Your task to perform on an android device: Open the calendar and show me this week's events? Image 0: 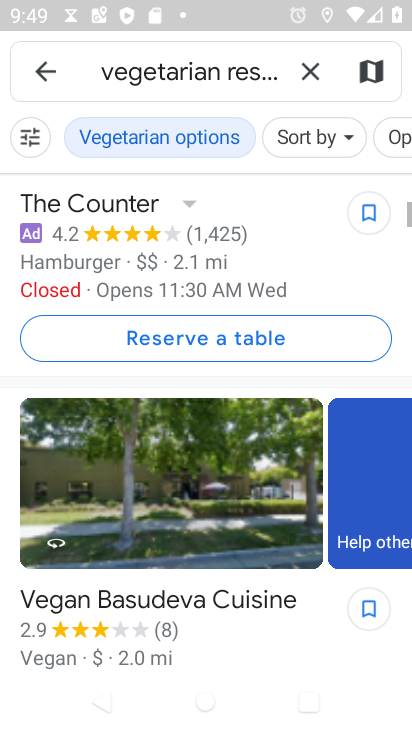
Step 0: press home button
Your task to perform on an android device: Open the calendar and show me this week's events? Image 1: 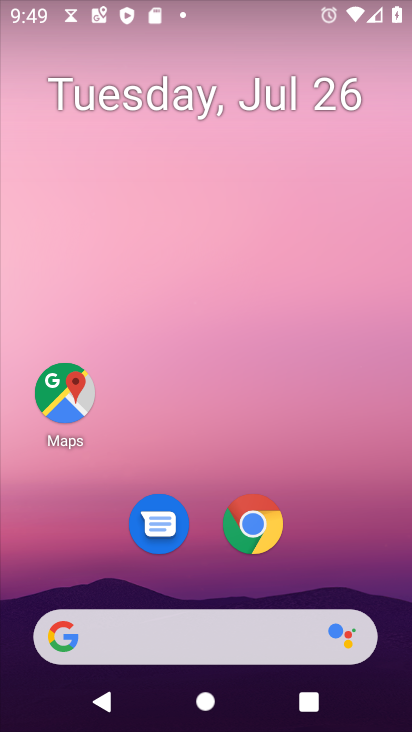
Step 1: drag from (231, 3) to (233, 481)
Your task to perform on an android device: Open the calendar and show me this week's events? Image 2: 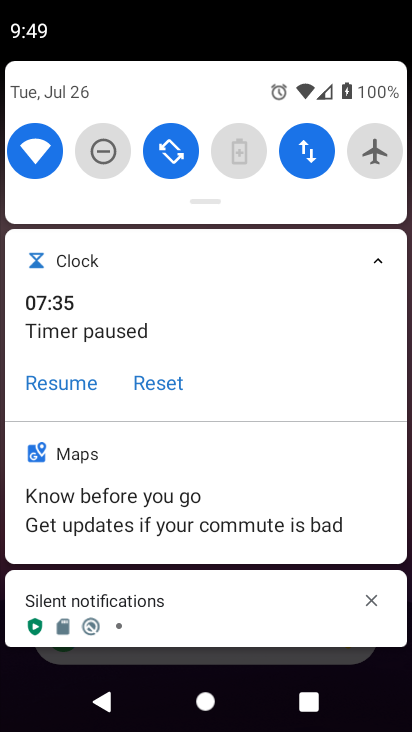
Step 2: drag from (204, 179) to (226, 573)
Your task to perform on an android device: Open the calendar and show me this week's events? Image 3: 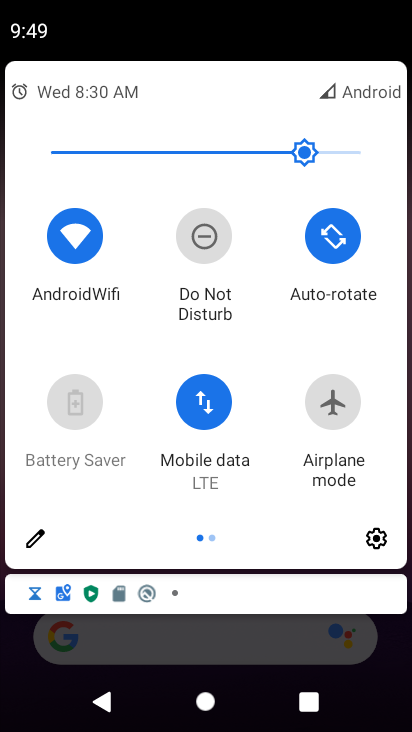
Step 3: press home button
Your task to perform on an android device: Open the calendar and show me this week's events? Image 4: 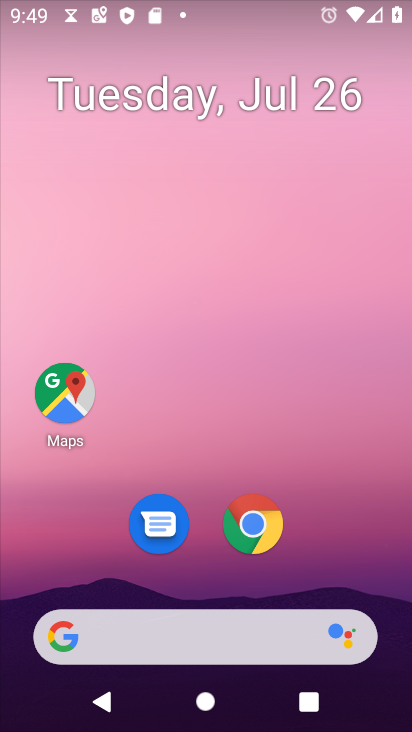
Step 4: drag from (163, 640) to (290, 65)
Your task to perform on an android device: Open the calendar and show me this week's events? Image 5: 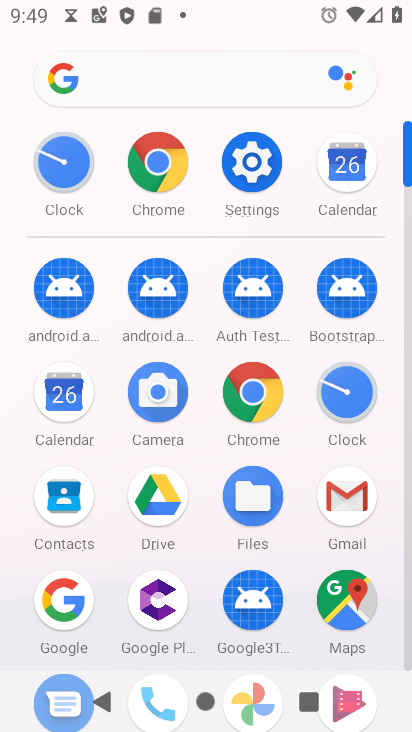
Step 5: click (60, 402)
Your task to perform on an android device: Open the calendar and show me this week's events? Image 6: 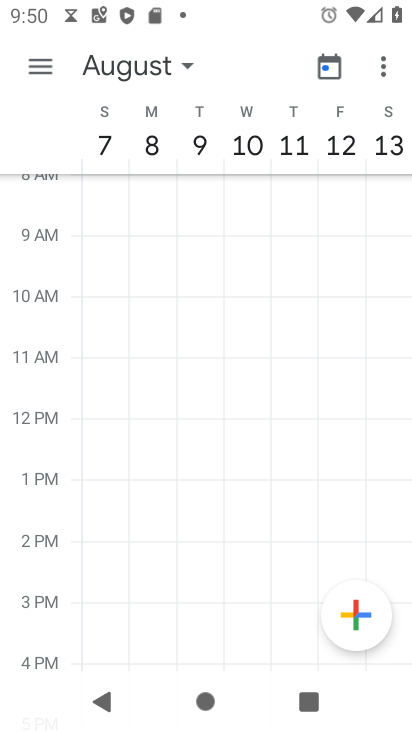
Step 6: click (135, 74)
Your task to perform on an android device: Open the calendar and show me this week's events? Image 7: 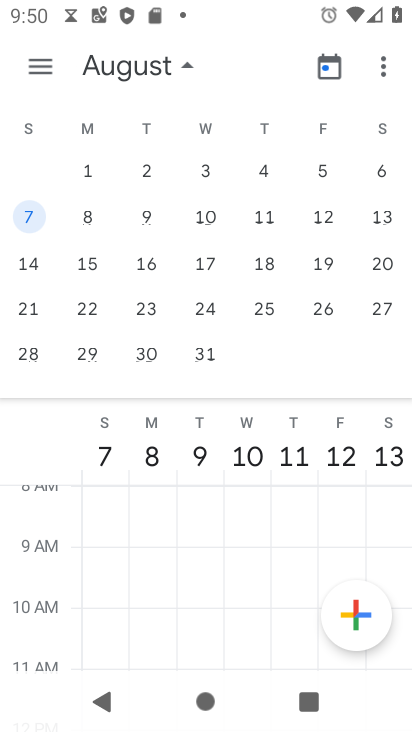
Step 7: drag from (164, 267) to (410, 269)
Your task to perform on an android device: Open the calendar and show me this week's events? Image 8: 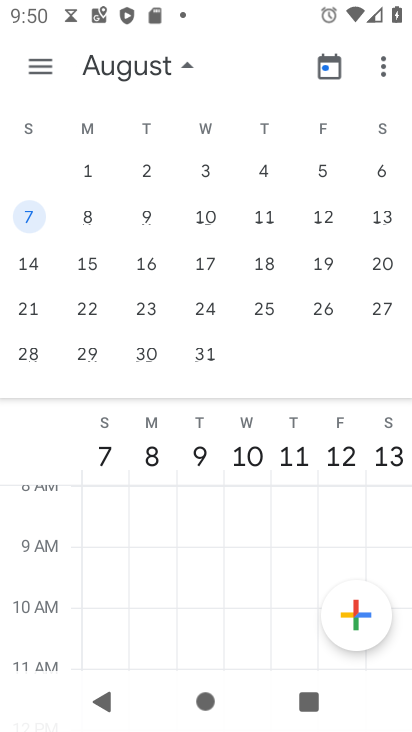
Step 8: drag from (61, 217) to (395, 260)
Your task to perform on an android device: Open the calendar and show me this week's events? Image 9: 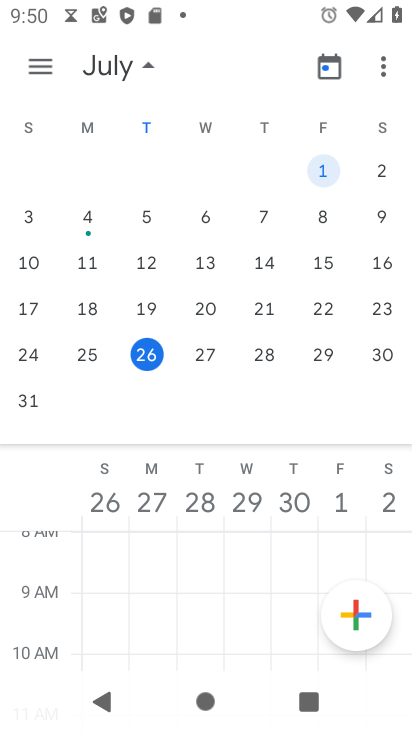
Step 9: click (145, 356)
Your task to perform on an android device: Open the calendar and show me this week's events? Image 10: 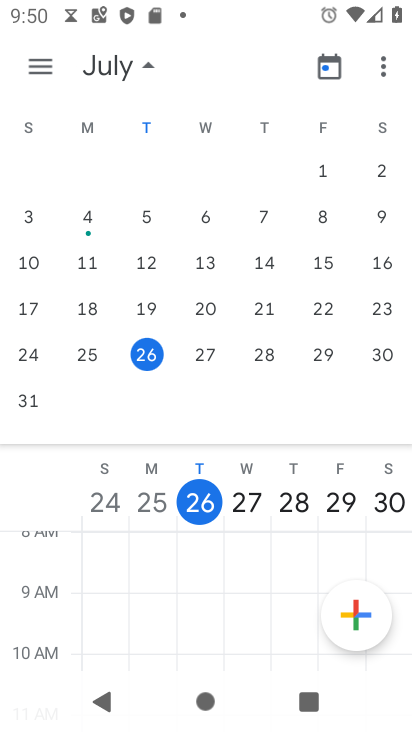
Step 10: click (38, 64)
Your task to perform on an android device: Open the calendar and show me this week's events? Image 11: 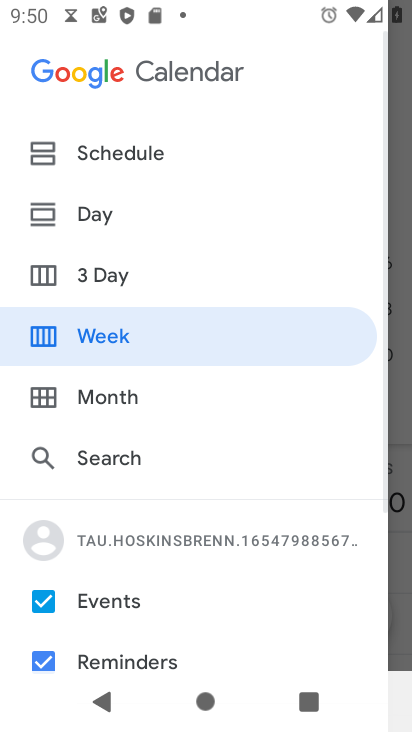
Step 11: click (122, 339)
Your task to perform on an android device: Open the calendar and show me this week's events? Image 12: 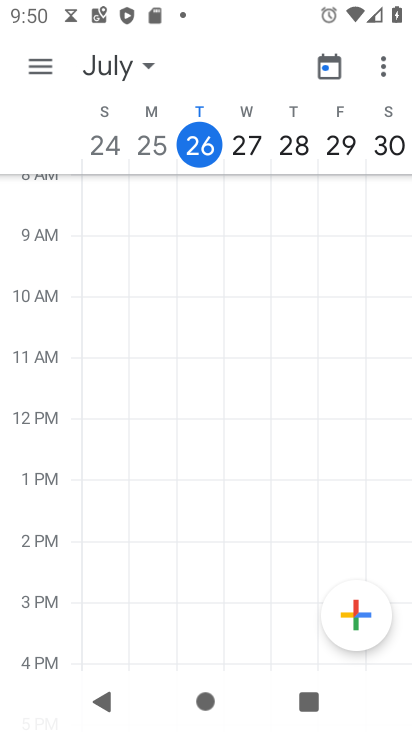
Step 12: click (44, 65)
Your task to perform on an android device: Open the calendar and show me this week's events? Image 13: 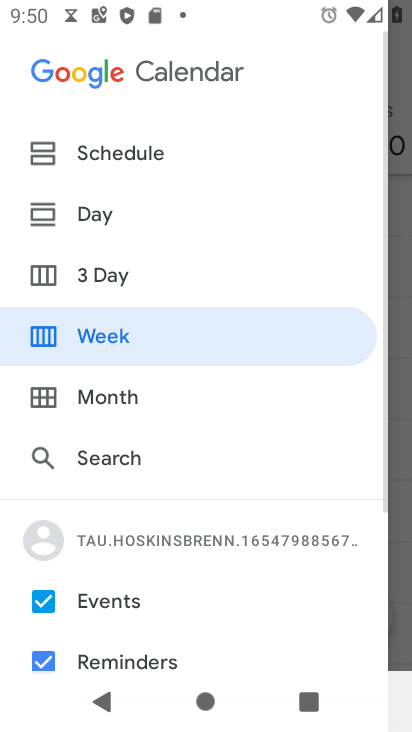
Step 13: click (116, 342)
Your task to perform on an android device: Open the calendar and show me this week's events? Image 14: 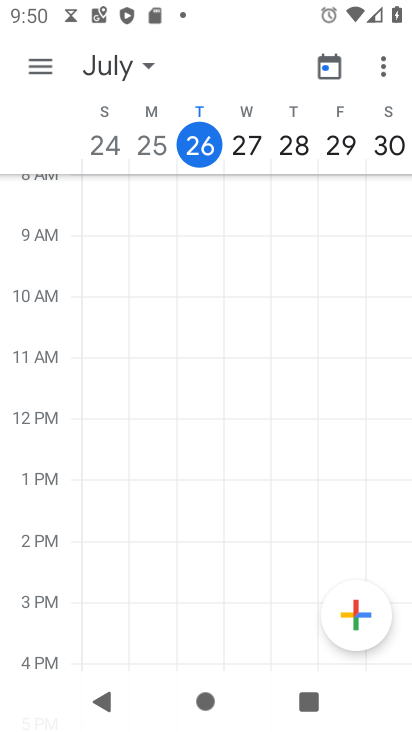
Step 14: click (46, 68)
Your task to perform on an android device: Open the calendar and show me this week's events? Image 15: 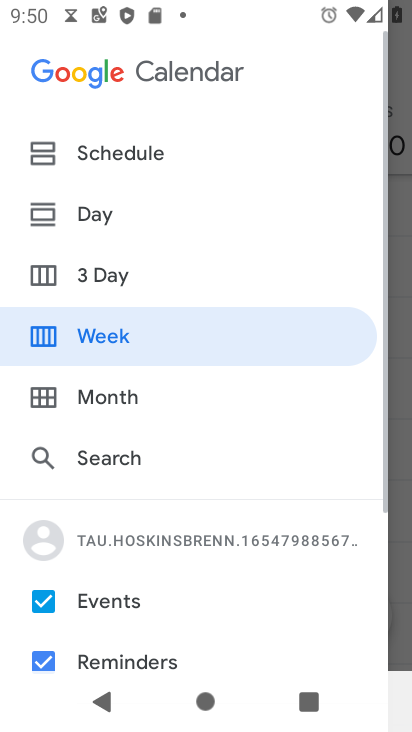
Step 15: click (130, 339)
Your task to perform on an android device: Open the calendar and show me this week's events? Image 16: 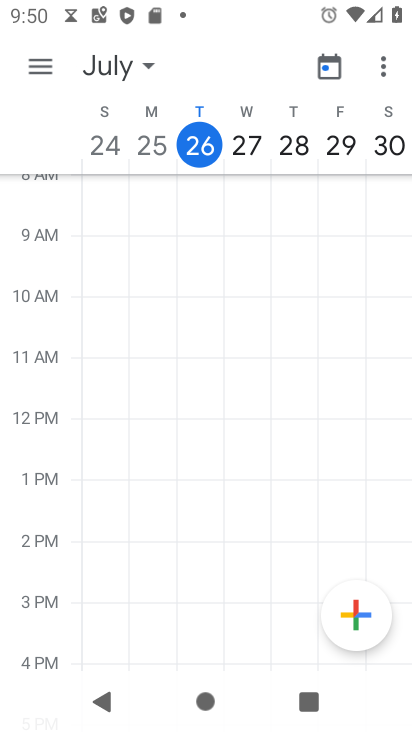
Step 16: task complete